Your task to perform on an android device: Open Wikipedia Image 0: 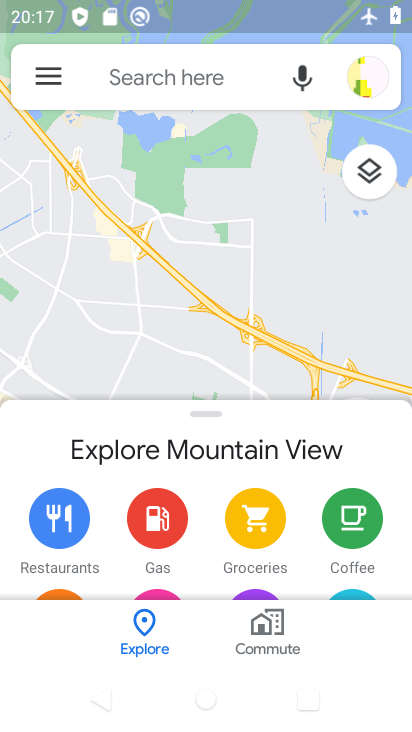
Step 0: press back button
Your task to perform on an android device: Open Wikipedia Image 1: 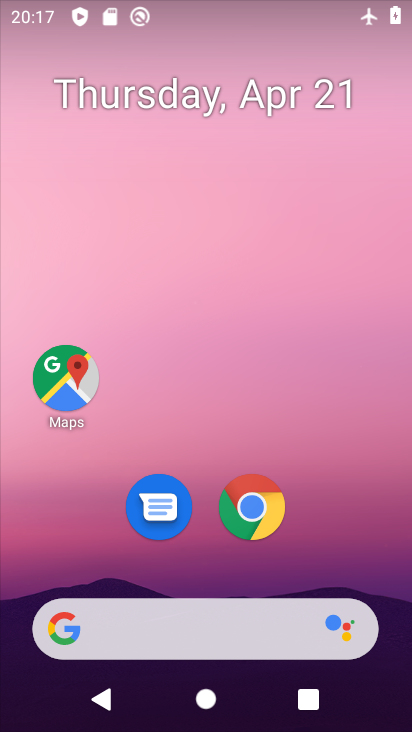
Step 1: click (260, 508)
Your task to perform on an android device: Open Wikipedia Image 2: 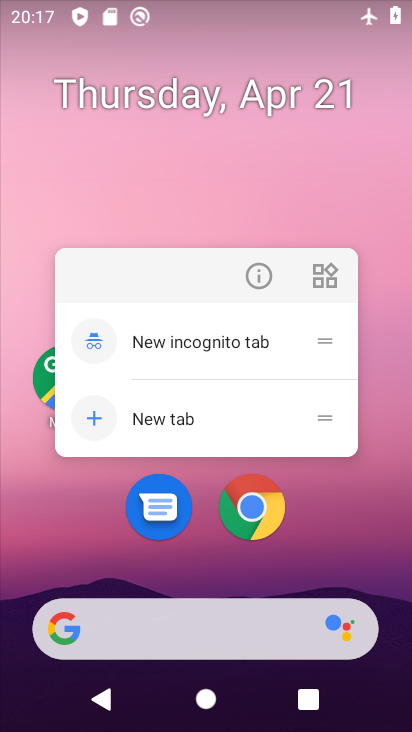
Step 2: click (250, 509)
Your task to perform on an android device: Open Wikipedia Image 3: 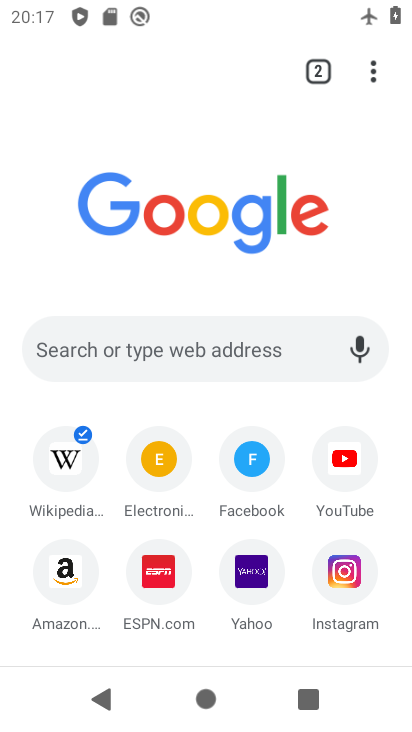
Step 3: click (54, 455)
Your task to perform on an android device: Open Wikipedia Image 4: 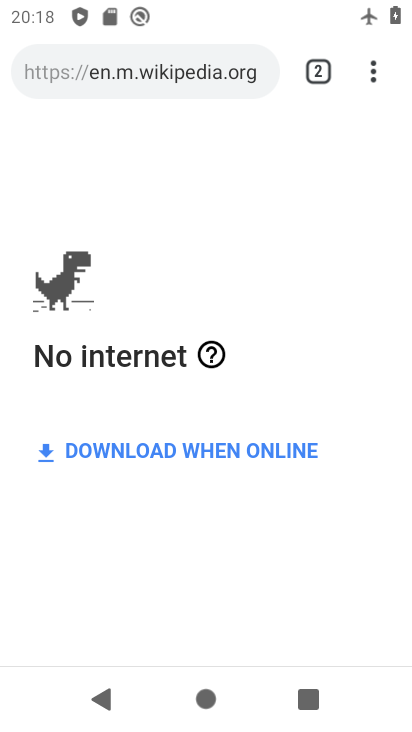
Step 4: task complete